Your task to perform on an android device: Go to Google Image 0: 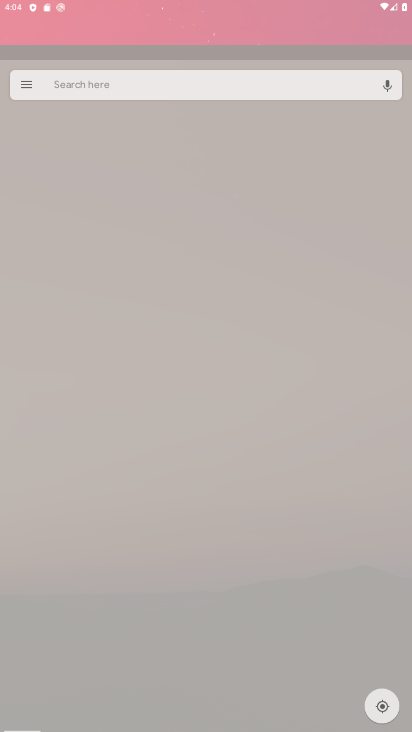
Step 0: press home button
Your task to perform on an android device: Go to Google Image 1: 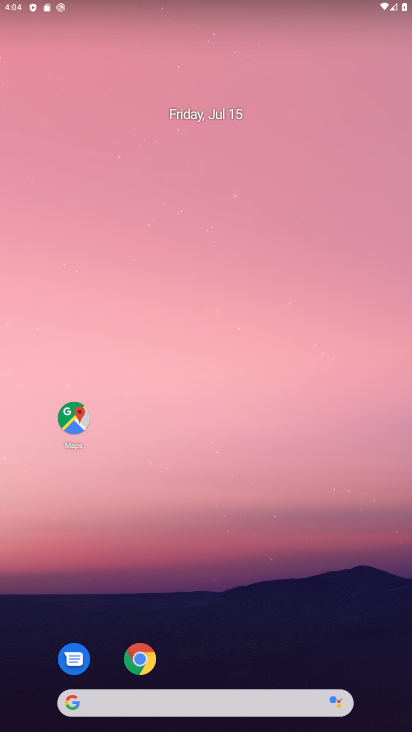
Step 1: drag from (243, 699) to (234, 0)
Your task to perform on an android device: Go to Google Image 2: 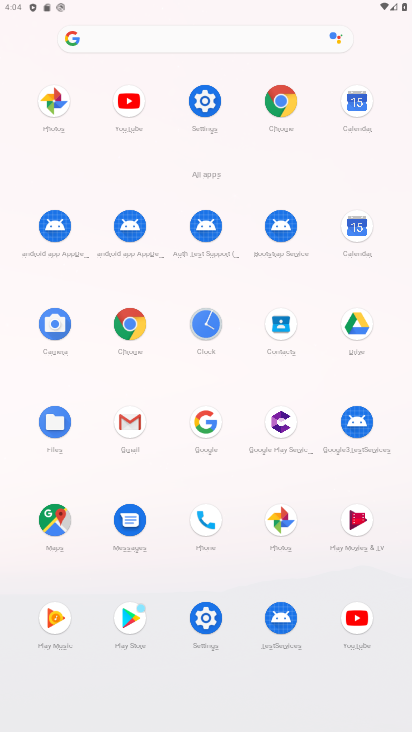
Step 2: click (143, 421)
Your task to perform on an android device: Go to Google Image 3: 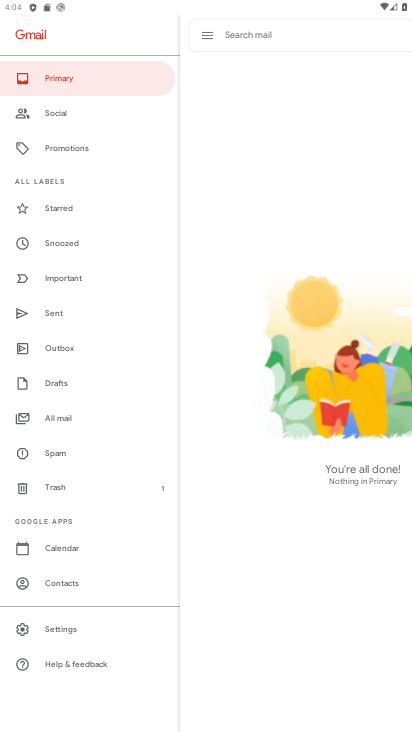
Step 3: press home button
Your task to perform on an android device: Go to Google Image 4: 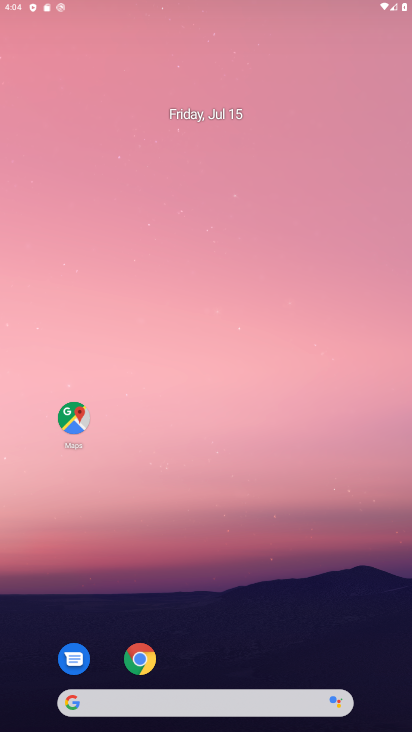
Step 4: drag from (283, 699) to (315, 11)
Your task to perform on an android device: Go to Google Image 5: 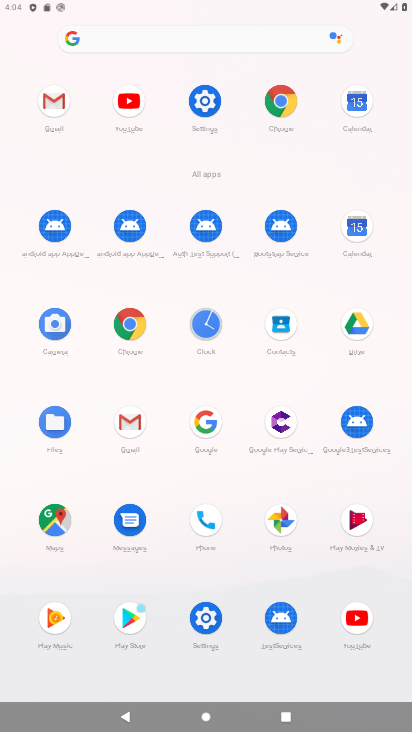
Step 5: click (134, 328)
Your task to perform on an android device: Go to Google Image 6: 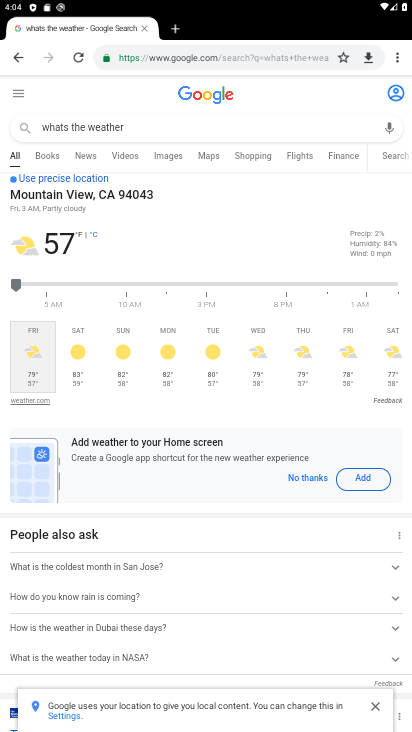
Step 6: drag from (401, 58) to (342, 57)
Your task to perform on an android device: Go to Google Image 7: 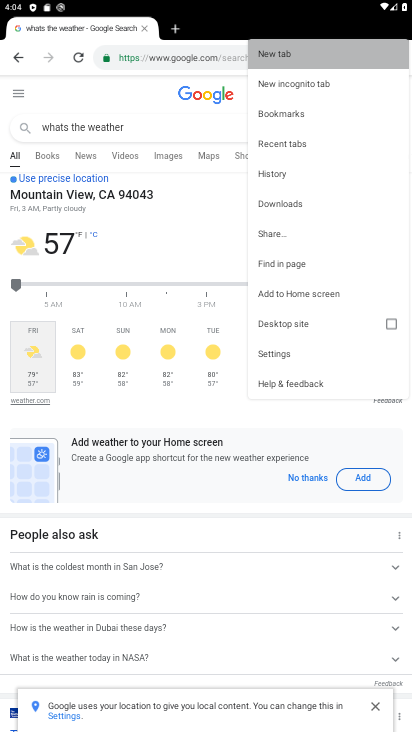
Step 7: click (342, 57)
Your task to perform on an android device: Go to Google Image 8: 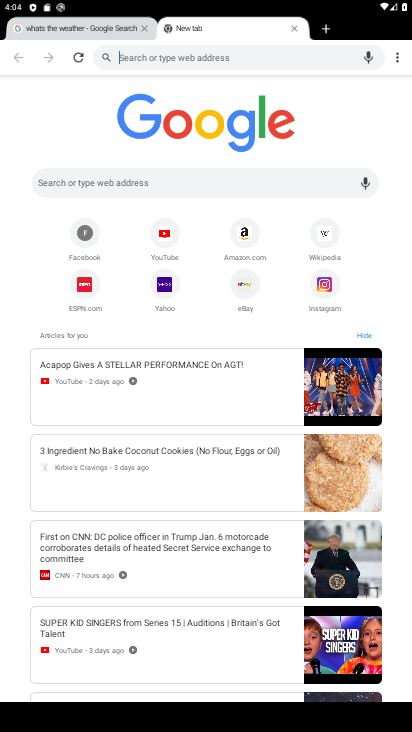
Step 8: task complete